Your task to perform on an android device: What is the recent news? Image 0: 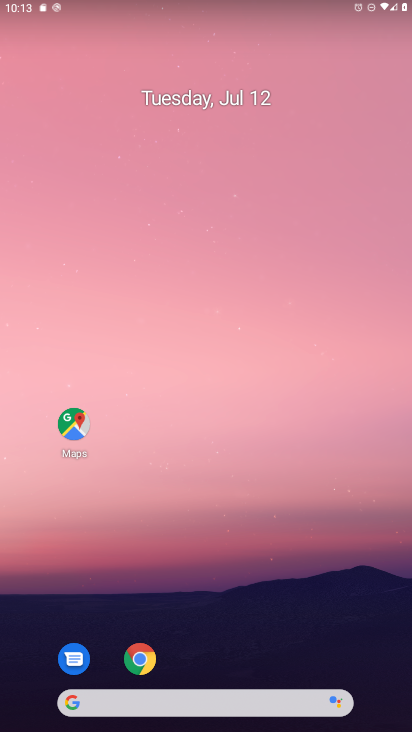
Step 0: drag from (34, 318) to (409, 374)
Your task to perform on an android device: What is the recent news? Image 1: 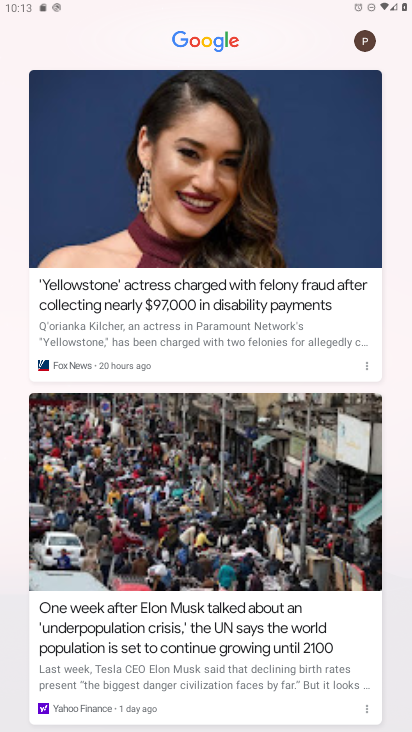
Step 1: task complete